Your task to perform on an android device: turn off smart reply in the gmail app Image 0: 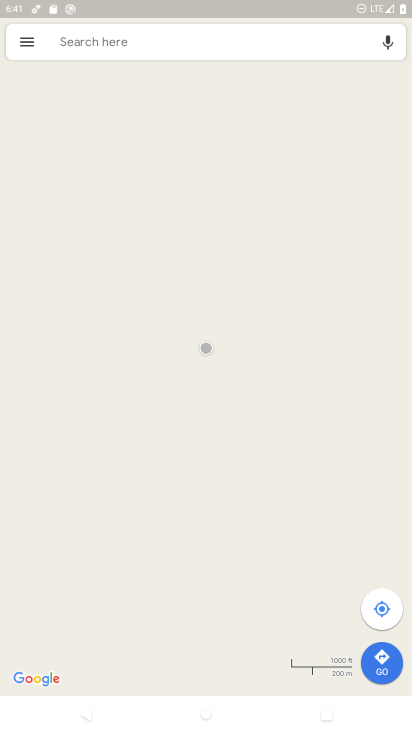
Step 0: press home button
Your task to perform on an android device: turn off smart reply in the gmail app Image 1: 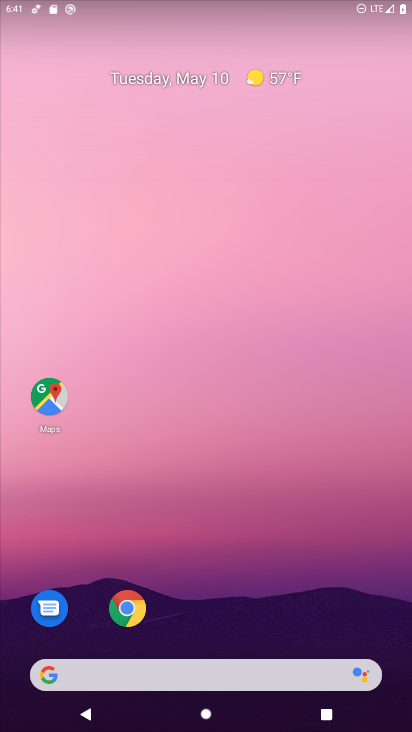
Step 1: drag from (288, 616) to (264, 71)
Your task to perform on an android device: turn off smart reply in the gmail app Image 2: 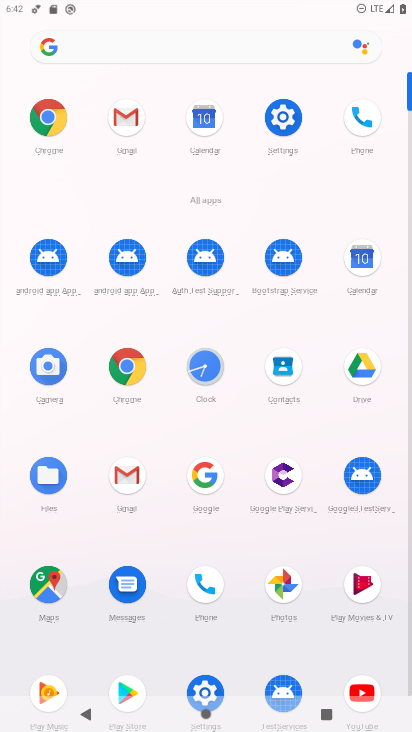
Step 2: click (127, 464)
Your task to perform on an android device: turn off smart reply in the gmail app Image 3: 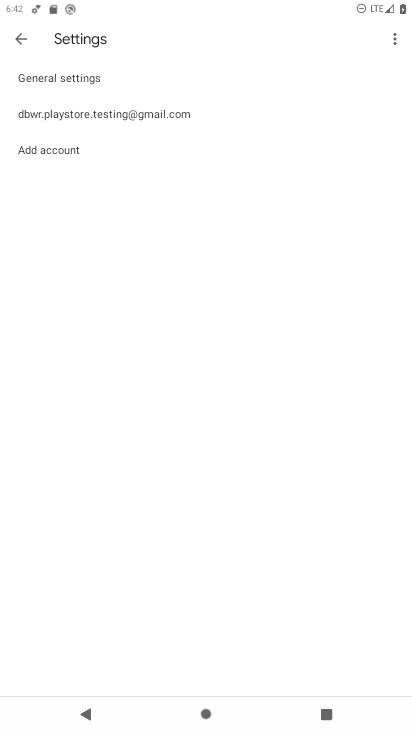
Step 3: click (186, 122)
Your task to perform on an android device: turn off smart reply in the gmail app Image 4: 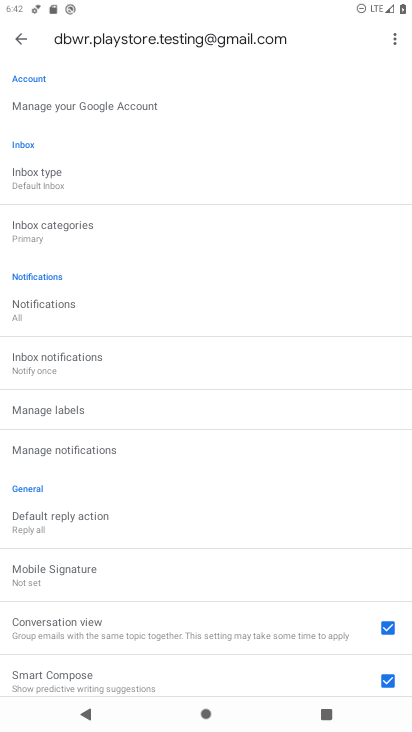
Step 4: click (68, 183)
Your task to perform on an android device: turn off smart reply in the gmail app Image 5: 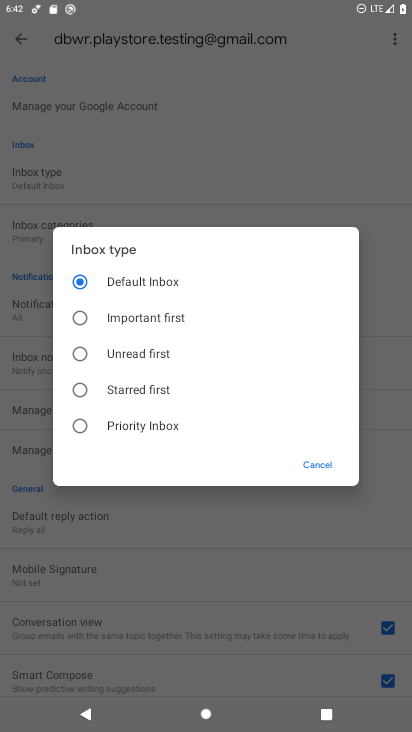
Step 5: click (328, 449)
Your task to perform on an android device: turn off smart reply in the gmail app Image 6: 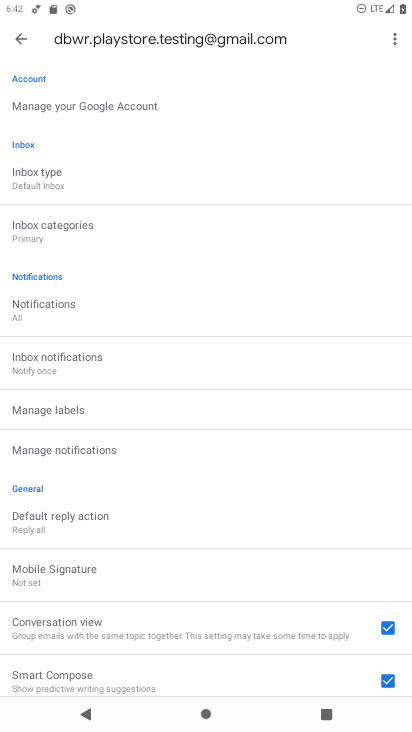
Step 6: drag from (221, 570) to (212, 43)
Your task to perform on an android device: turn off smart reply in the gmail app Image 7: 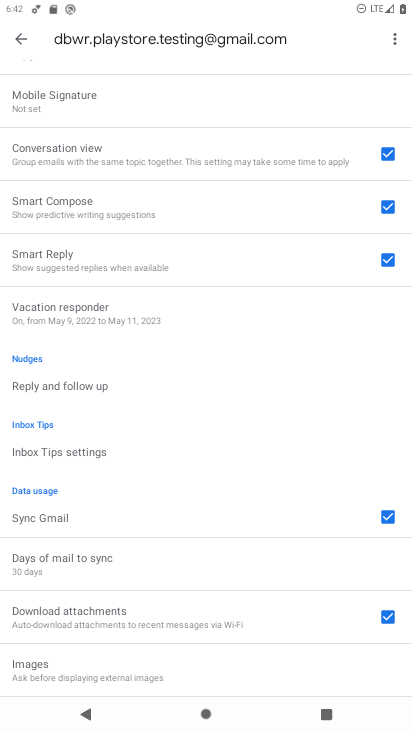
Step 7: click (158, 259)
Your task to perform on an android device: turn off smart reply in the gmail app Image 8: 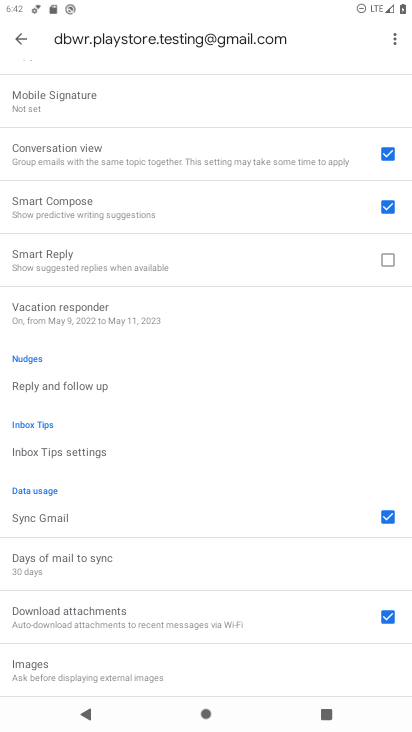
Step 8: task complete